Your task to perform on an android device: uninstall "Venmo" Image 0: 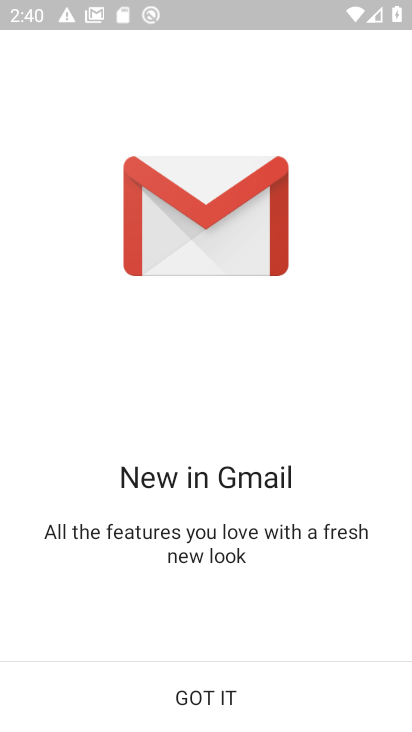
Step 0: press home button
Your task to perform on an android device: uninstall "Venmo" Image 1: 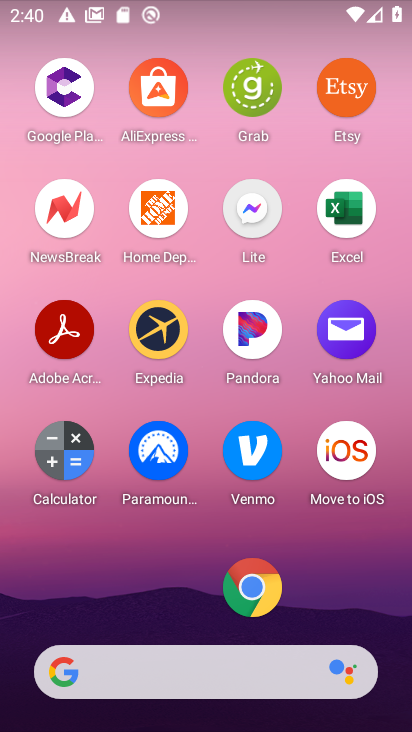
Step 1: drag from (168, 576) to (201, 147)
Your task to perform on an android device: uninstall "Venmo" Image 2: 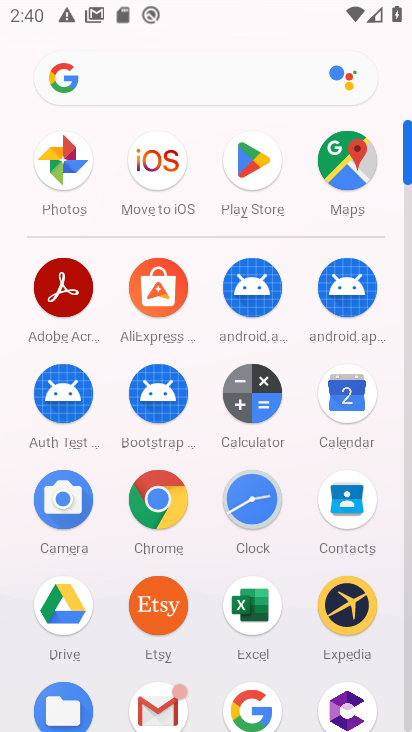
Step 2: click (243, 162)
Your task to perform on an android device: uninstall "Venmo" Image 3: 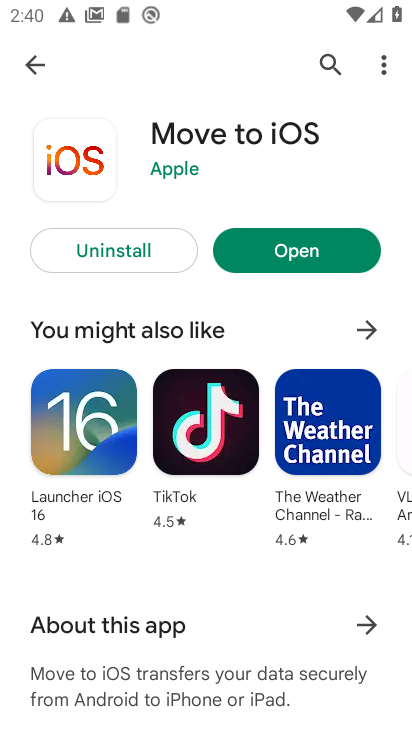
Step 3: click (325, 56)
Your task to perform on an android device: uninstall "Venmo" Image 4: 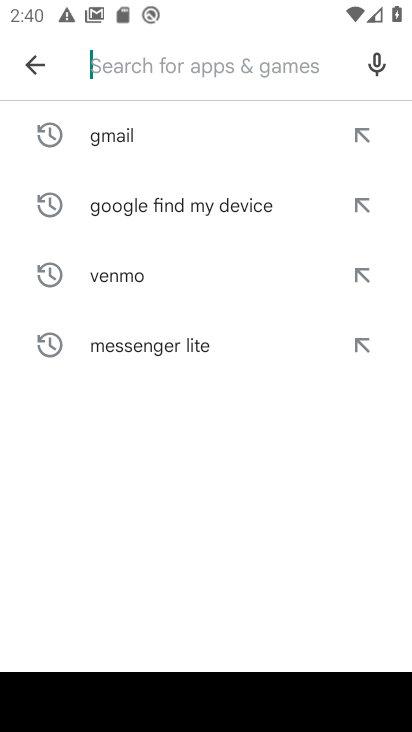
Step 4: type "Venmo"
Your task to perform on an android device: uninstall "Venmo" Image 5: 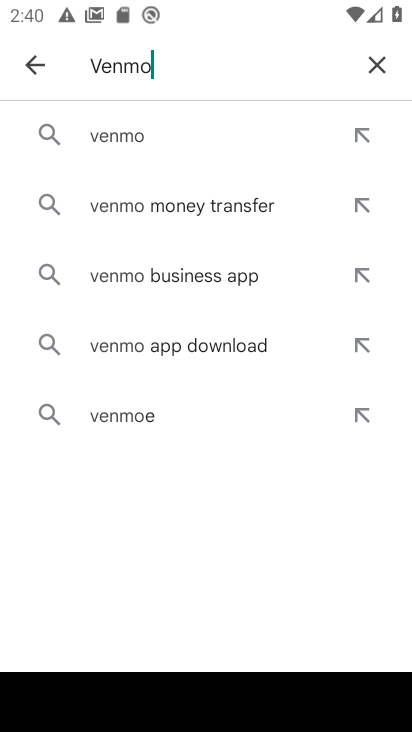
Step 5: click (153, 142)
Your task to perform on an android device: uninstall "Venmo" Image 6: 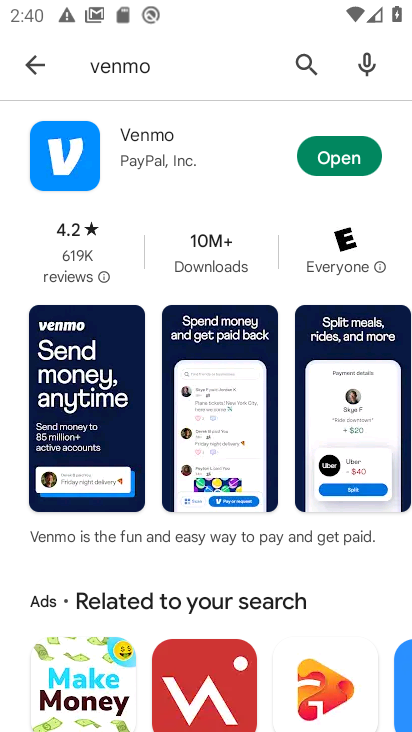
Step 6: click (162, 139)
Your task to perform on an android device: uninstall "Venmo" Image 7: 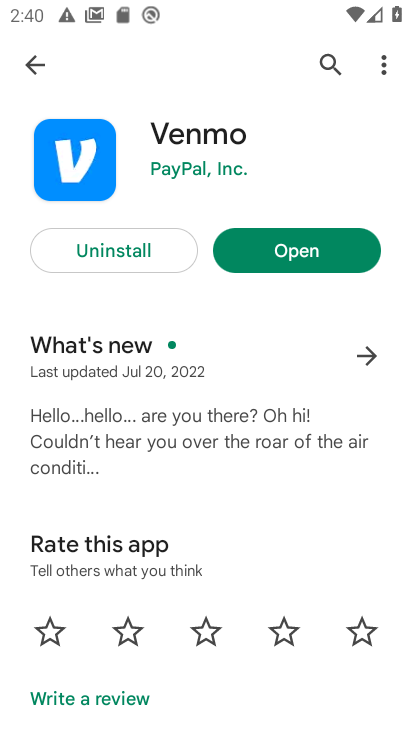
Step 7: click (164, 259)
Your task to perform on an android device: uninstall "Venmo" Image 8: 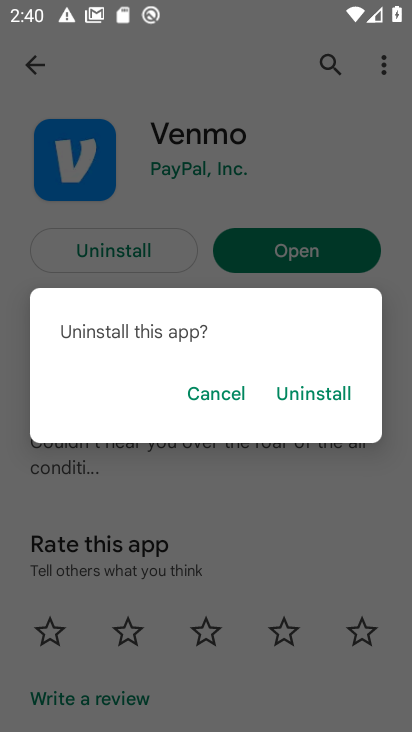
Step 8: click (280, 385)
Your task to perform on an android device: uninstall "Venmo" Image 9: 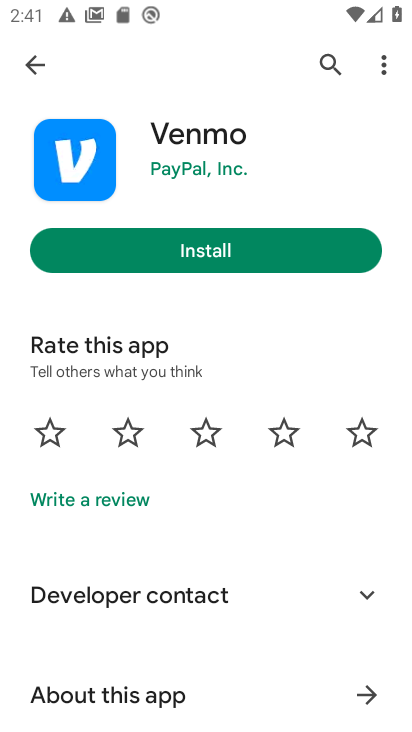
Step 9: task complete